Your task to perform on an android device: Search for floor lamps on article.com Image 0: 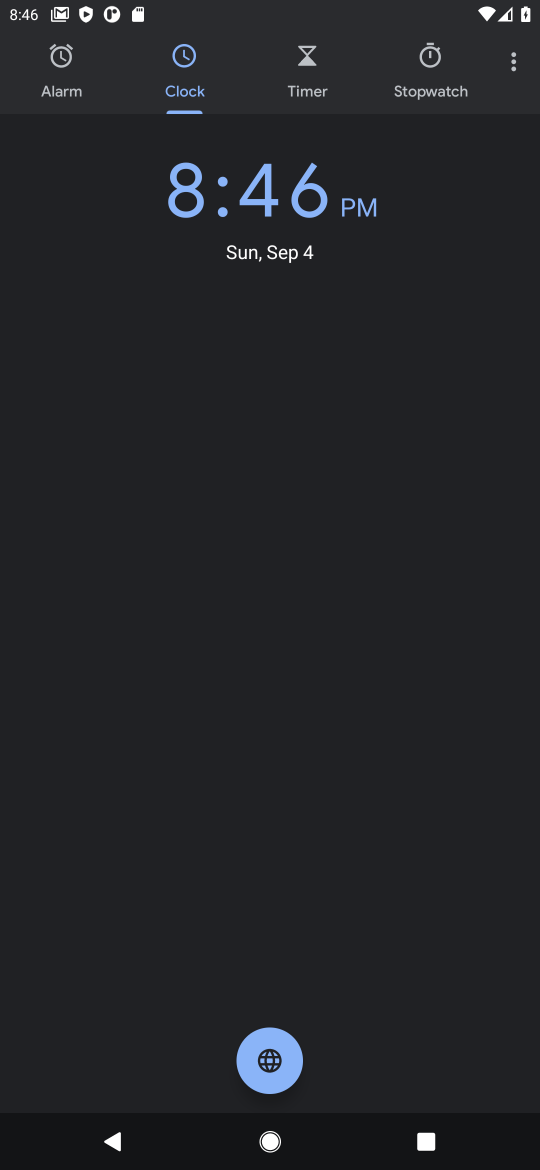
Step 0: press home button
Your task to perform on an android device: Search for floor lamps on article.com Image 1: 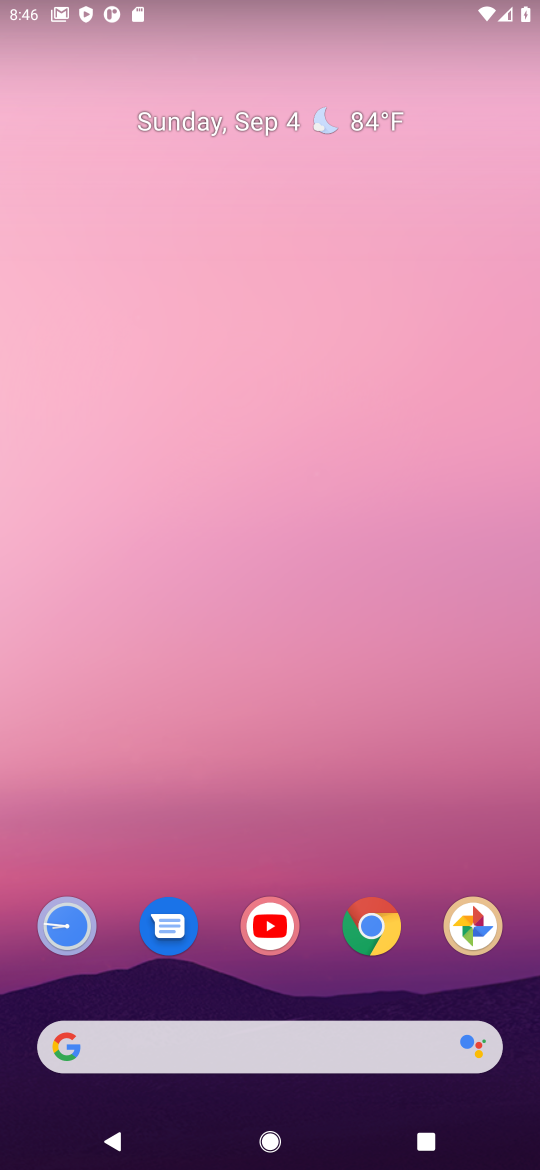
Step 1: click (163, 1049)
Your task to perform on an android device: Search for floor lamps on article.com Image 2: 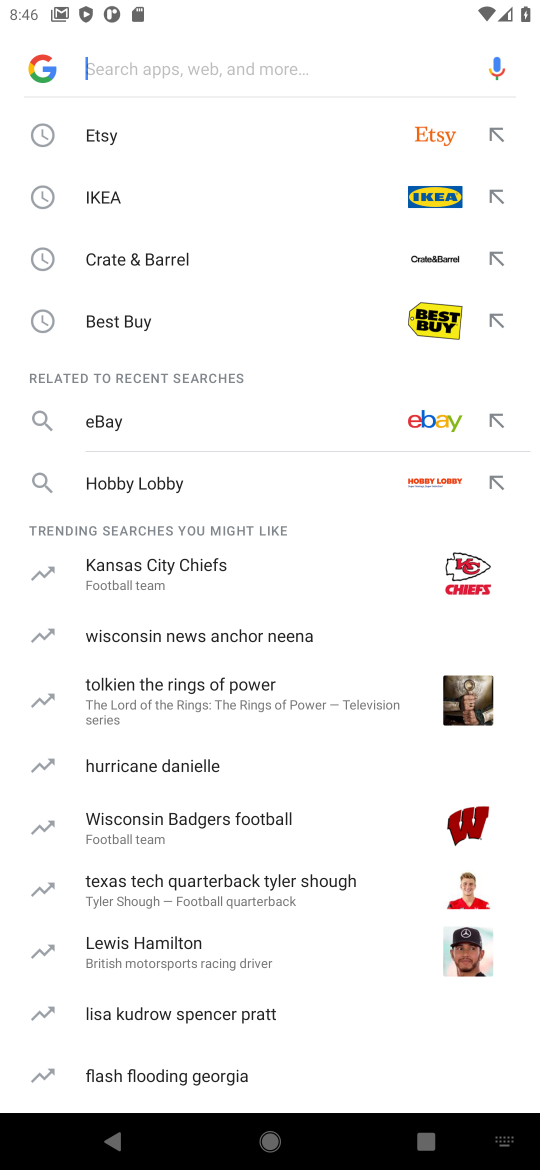
Step 2: type "article.com"
Your task to perform on an android device: Search for floor lamps on article.com Image 3: 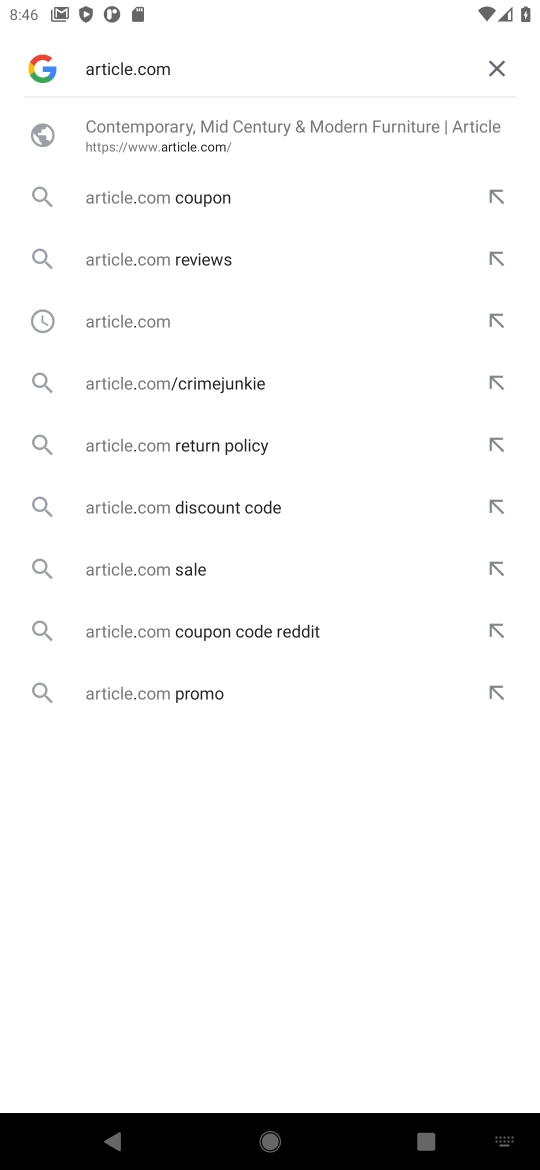
Step 3: click (113, 315)
Your task to perform on an android device: Search for floor lamps on article.com Image 4: 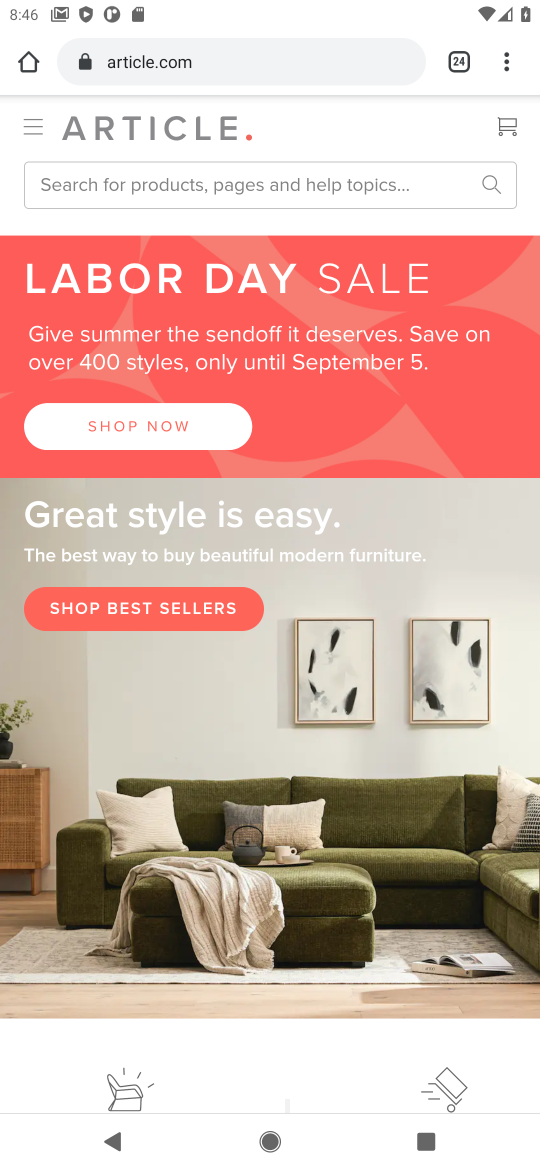
Step 4: click (192, 179)
Your task to perform on an android device: Search for floor lamps on article.com Image 5: 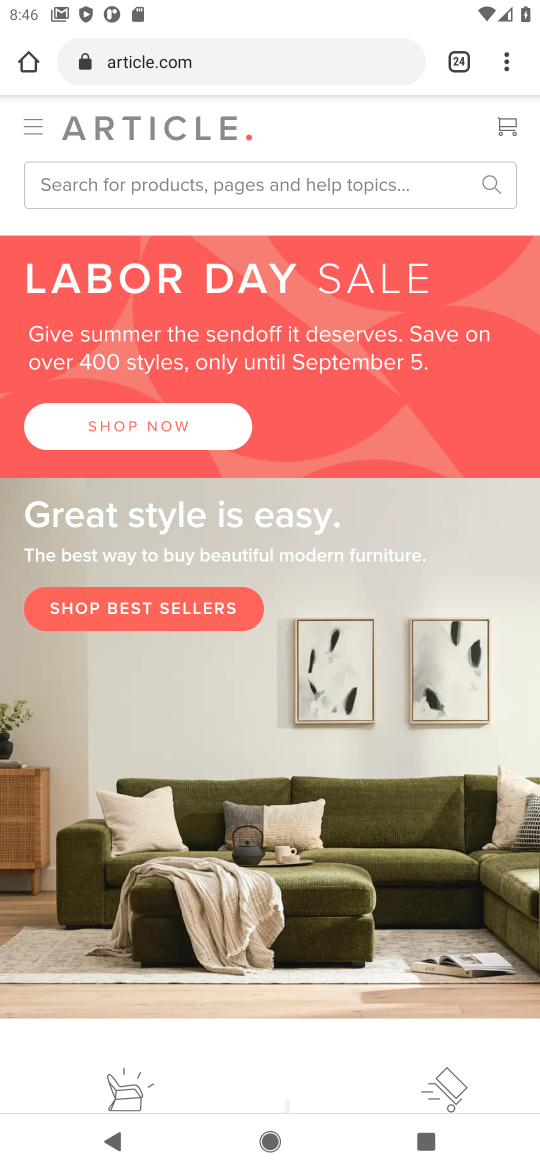
Step 5: click (178, 172)
Your task to perform on an android device: Search for floor lamps on article.com Image 6: 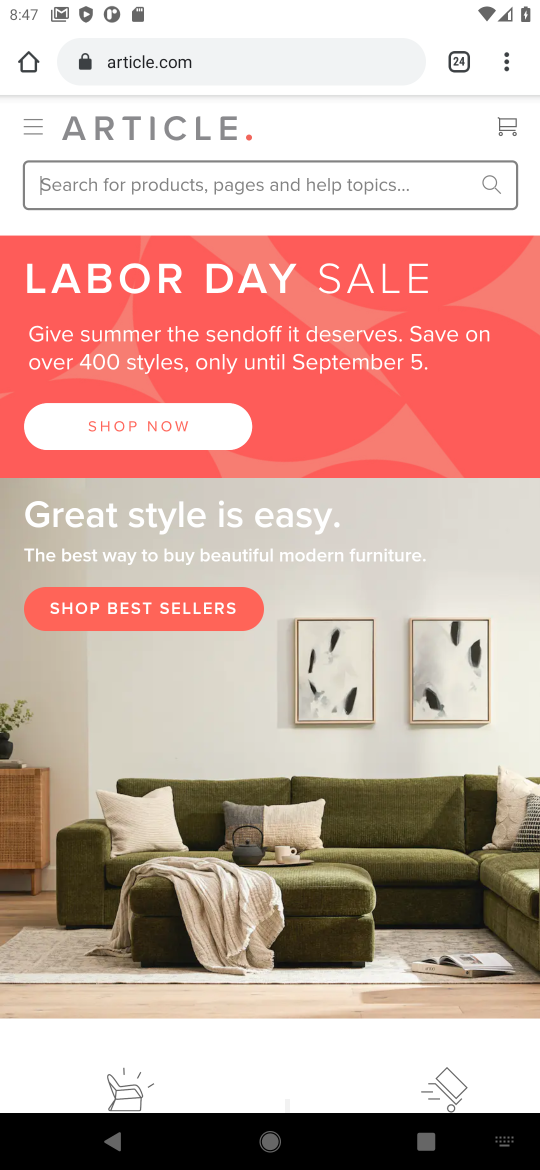
Step 6: type "floor lamps"
Your task to perform on an android device: Search for floor lamps on article.com Image 7: 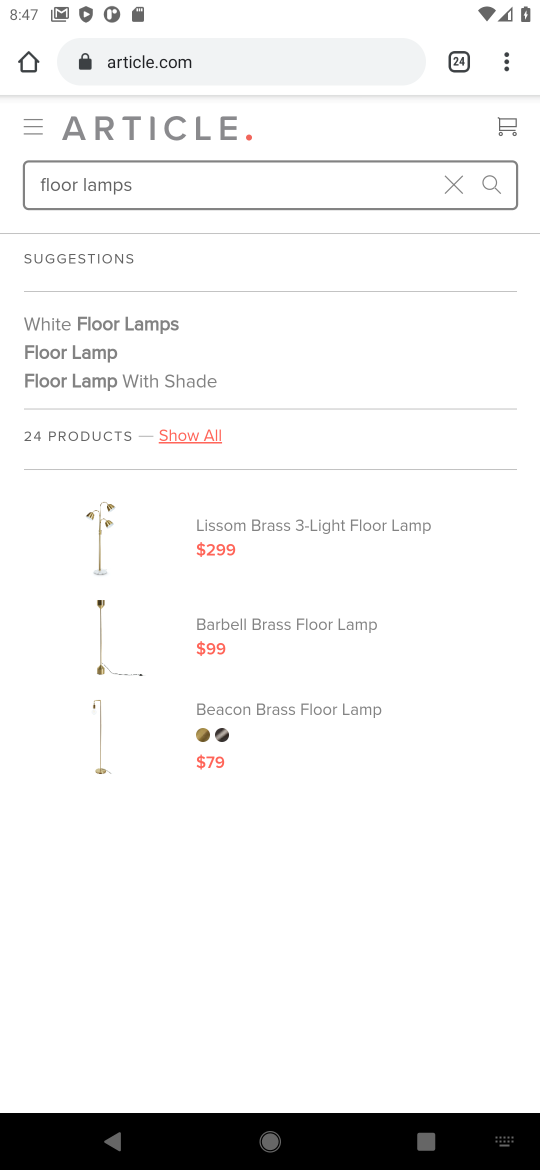
Step 7: task complete